Your task to perform on an android device: How much does a 3 bedroom apartment rent for in Austin? Image 0: 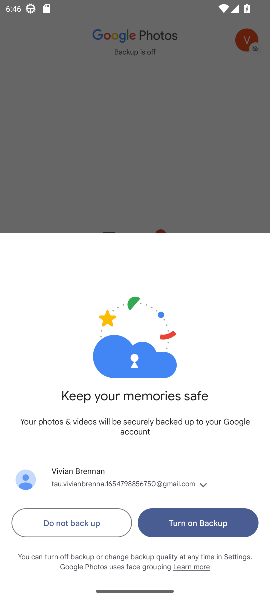
Step 0: press home button
Your task to perform on an android device: How much does a 3 bedroom apartment rent for in Austin? Image 1: 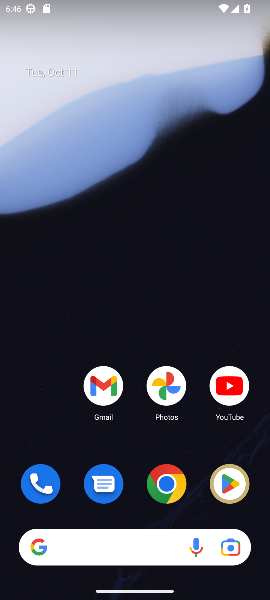
Step 1: click (167, 486)
Your task to perform on an android device: How much does a 3 bedroom apartment rent for in Austin? Image 2: 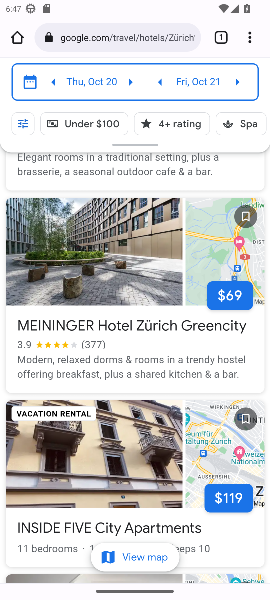
Step 2: click (126, 37)
Your task to perform on an android device: How much does a 3 bedroom apartment rent for in Austin? Image 3: 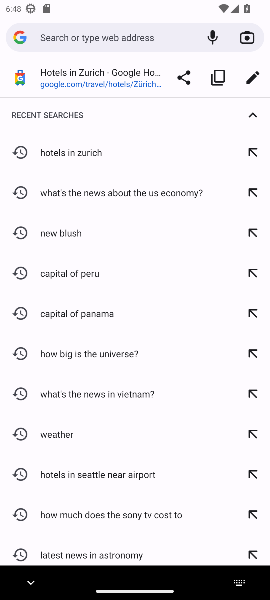
Step 3: type "How much does a 3 bedroom apartment rent for in Austin?"
Your task to perform on an android device: How much does a 3 bedroom apartment rent for in Austin? Image 4: 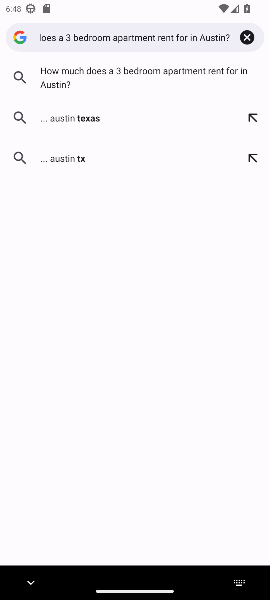
Step 4: click (90, 82)
Your task to perform on an android device: How much does a 3 bedroom apartment rent for in Austin? Image 5: 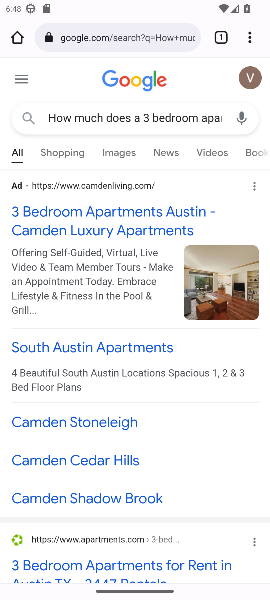
Step 5: drag from (114, 504) to (132, 304)
Your task to perform on an android device: How much does a 3 bedroom apartment rent for in Austin? Image 6: 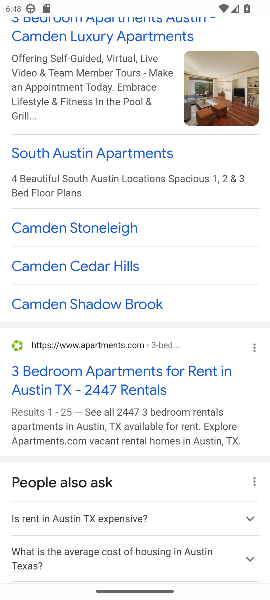
Step 6: drag from (90, 498) to (163, 280)
Your task to perform on an android device: How much does a 3 bedroom apartment rent for in Austin? Image 7: 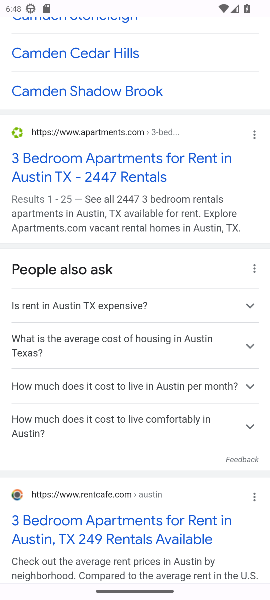
Step 7: click (80, 519)
Your task to perform on an android device: How much does a 3 bedroom apartment rent for in Austin? Image 8: 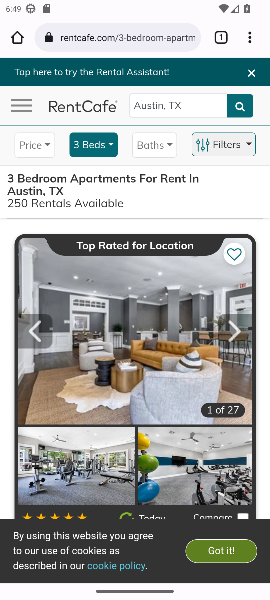
Step 8: task complete